Your task to perform on an android device: Open Yahoo.com Image 0: 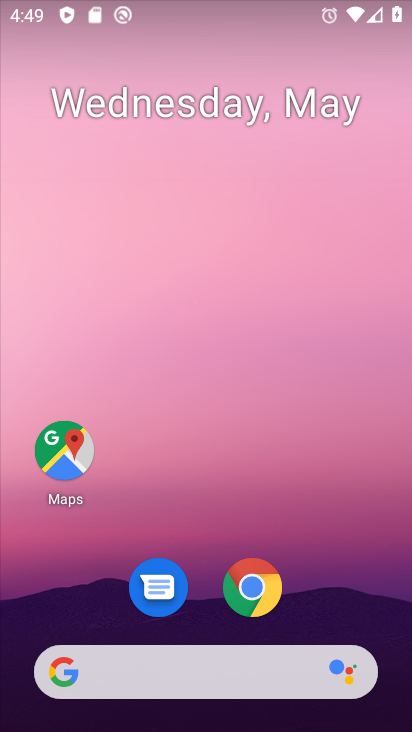
Step 0: drag from (336, 546) to (213, 109)
Your task to perform on an android device: Open Yahoo.com Image 1: 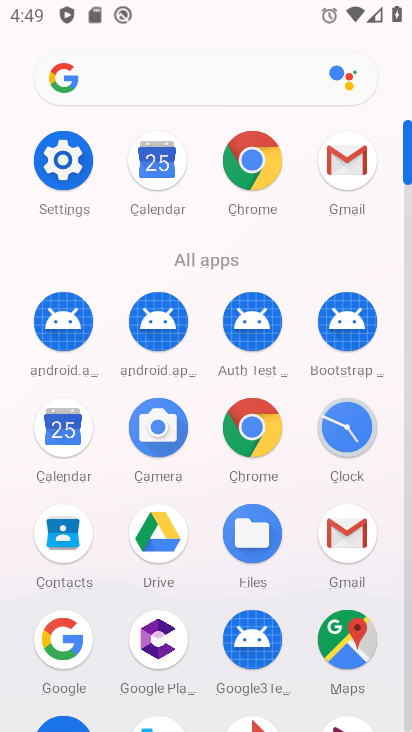
Step 1: click (247, 146)
Your task to perform on an android device: Open Yahoo.com Image 2: 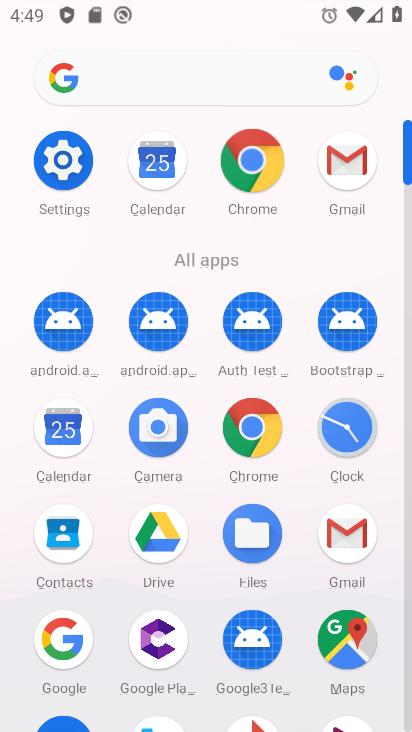
Step 2: click (247, 146)
Your task to perform on an android device: Open Yahoo.com Image 3: 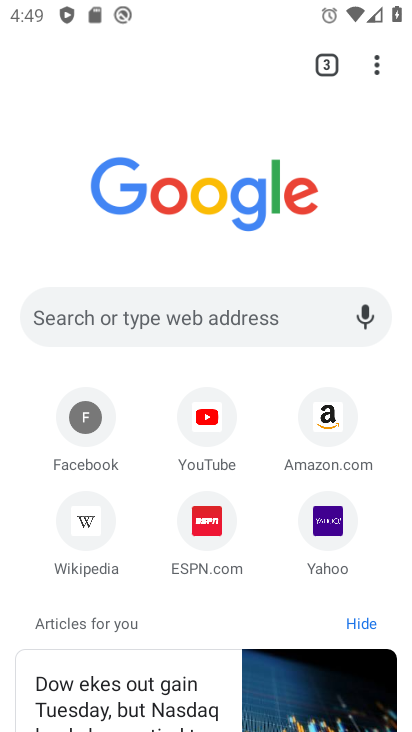
Step 3: click (329, 521)
Your task to perform on an android device: Open Yahoo.com Image 4: 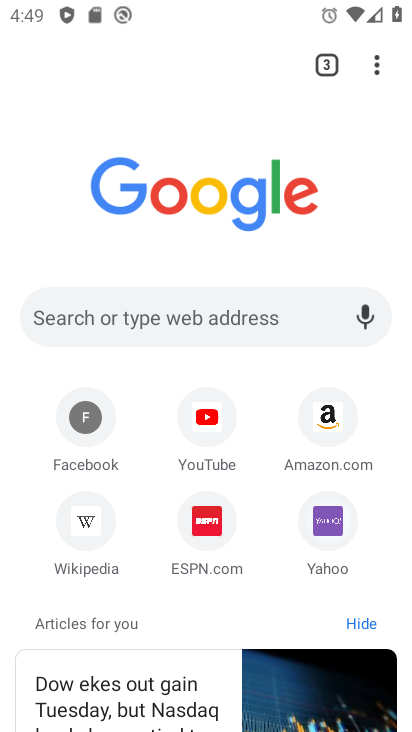
Step 4: click (329, 521)
Your task to perform on an android device: Open Yahoo.com Image 5: 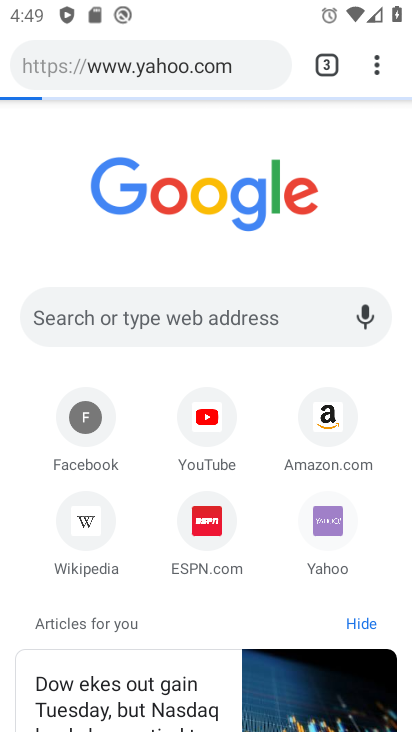
Step 5: click (329, 520)
Your task to perform on an android device: Open Yahoo.com Image 6: 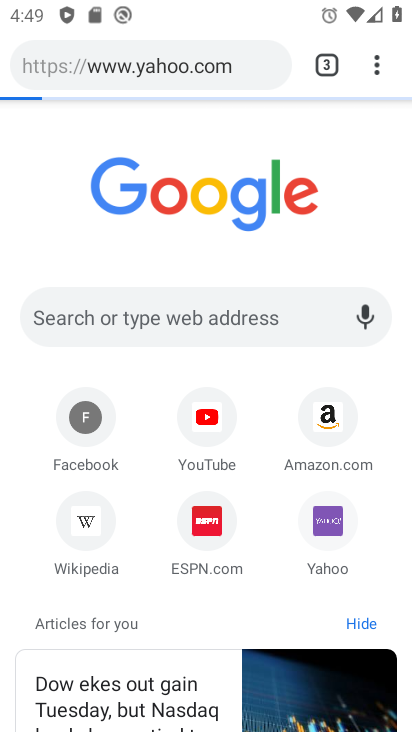
Step 6: click (329, 520)
Your task to perform on an android device: Open Yahoo.com Image 7: 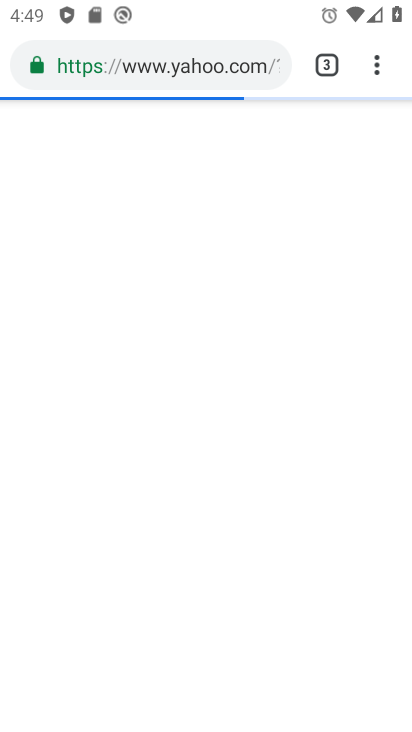
Step 7: task complete